Your task to perform on an android device: toggle priority inbox in the gmail app Image 0: 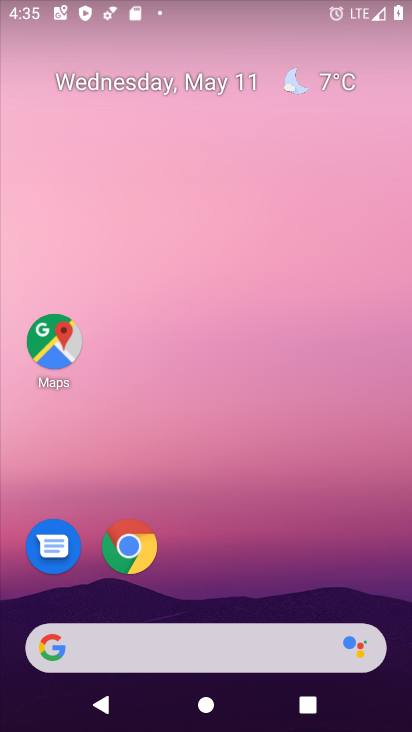
Step 0: drag from (204, 620) to (348, 0)
Your task to perform on an android device: toggle priority inbox in the gmail app Image 1: 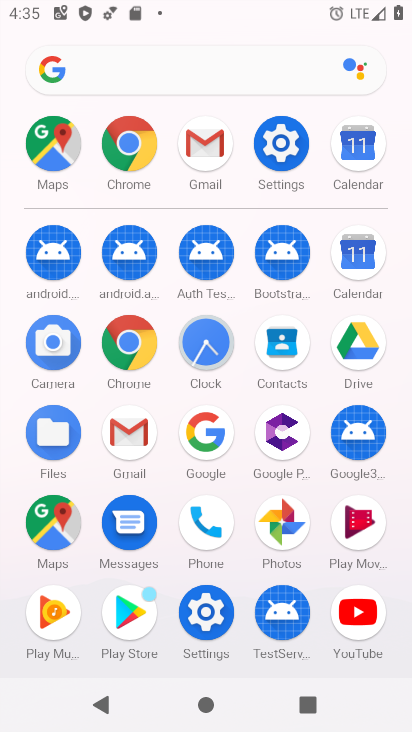
Step 1: click (111, 437)
Your task to perform on an android device: toggle priority inbox in the gmail app Image 2: 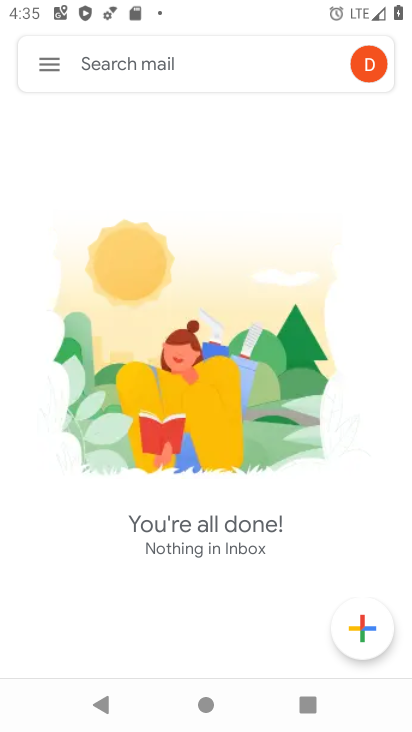
Step 2: click (45, 48)
Your task to perform on an android device: toggle priority inbox in the gmail app Image 3: 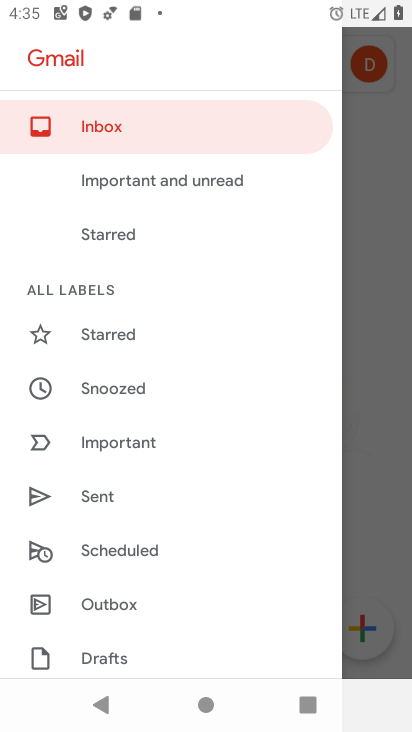
Step 3: drag from (114, 650) to (76, 92)
Your task to perform on an android device: toggle priority inbox in the gmail app Image 4: 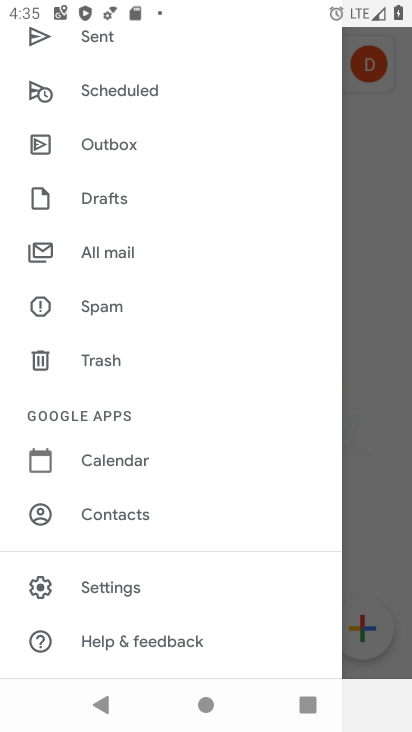
Step 4: click (117, 587)
Your task to perform on an android device: toggle priority inbox in the gmail app Image 5: 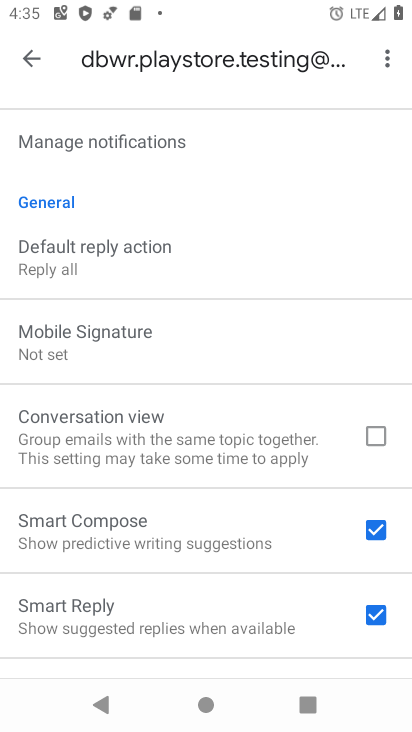
Step 5: drag from (238, 217) to (196, 655)
Your task to perform on an android device: toggle priority inbox in the gmail app Image 6: 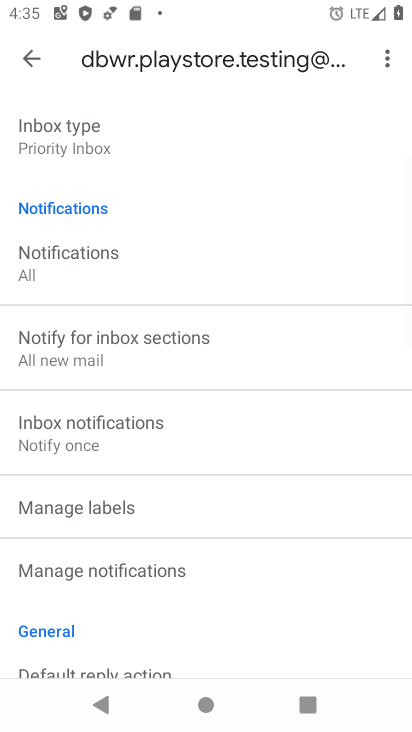
Step 6: drag from (181, 258) to (231, 686)
Your task to perform on an android device: toggle priority inbox in the gmail app Image 7: 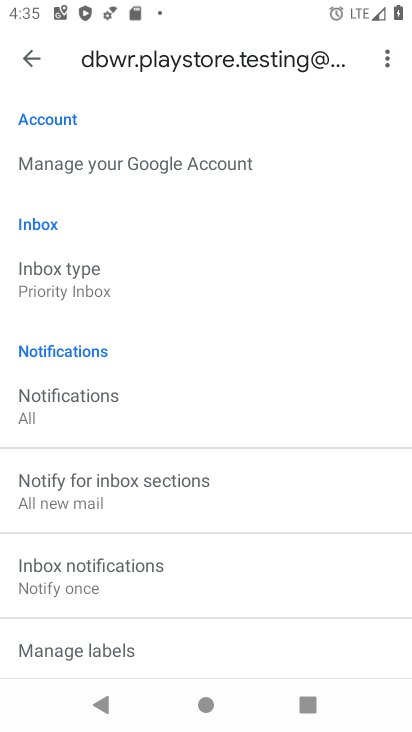
Step 7: click (102, 278)
Your task to perform on an android device: toggle priority inbox in the gmail app Image 8: 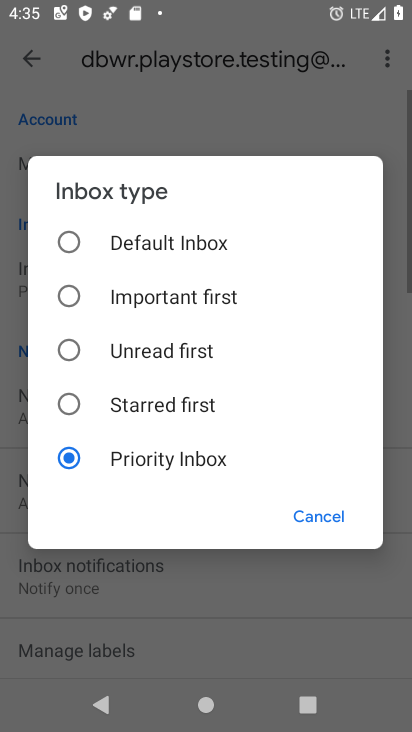
Step 8: click (123, 252)
Your task to perform on an android device: toggle priority inbox in the gmail app Image 9: 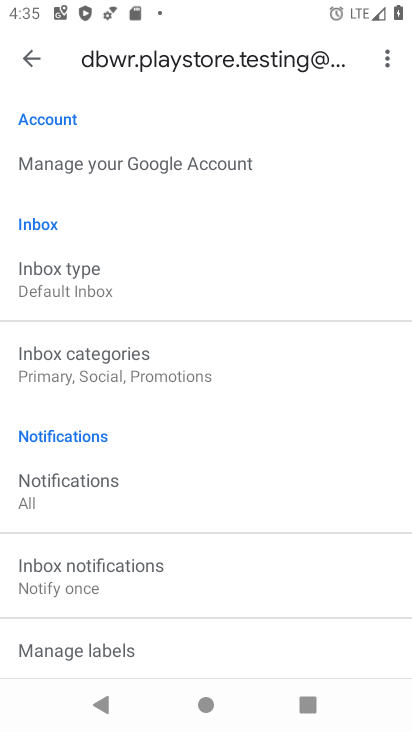
Step 9: task complete